Your task to perform on an android device: turn notification dots off Image 0: 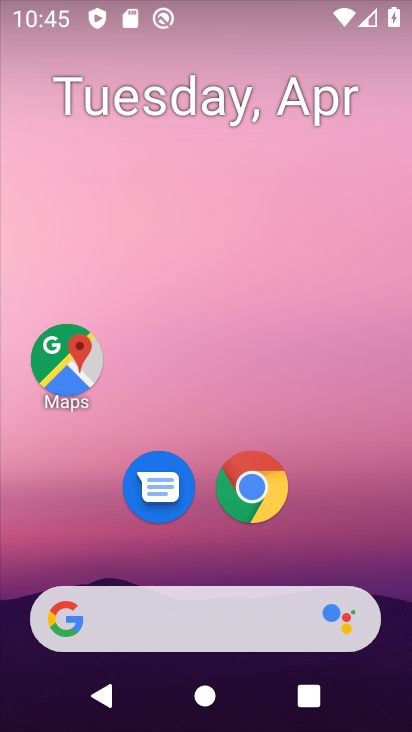
Step 0: drag from (205, 593) to (198, 38)
Your task to perform on an android device: turn notification dots off Image 1: 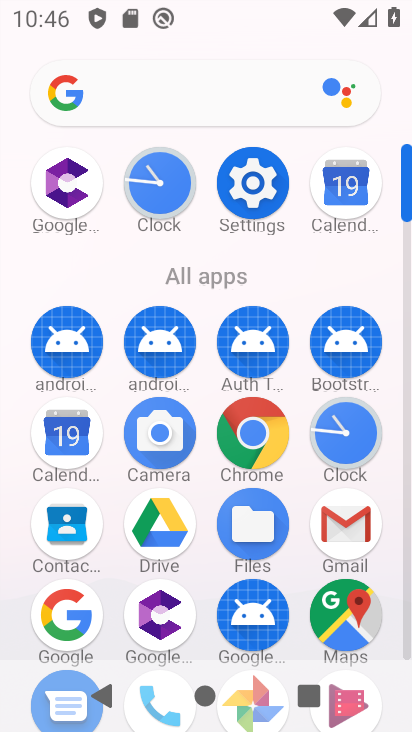
Step 1: click (243, 187)
Your task to perform on an android device: turn notification dots off Image 2: 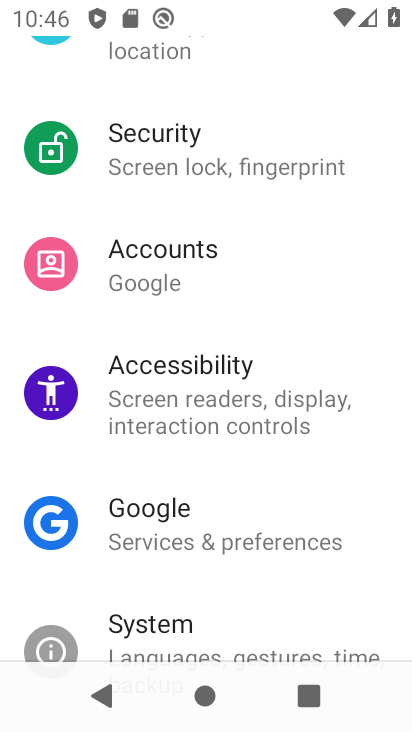
Step 2: drag from (174, 563) to (187, 724)
Your task to perform on an android device: turn notification dots off Image 3: 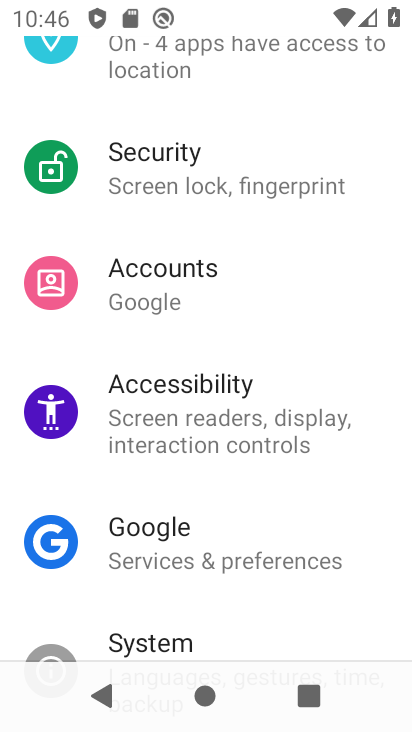
Step 3: drag from (226, 250) to (146, 706)
Your task to perform on an android device: turn notification dots off Image 4: 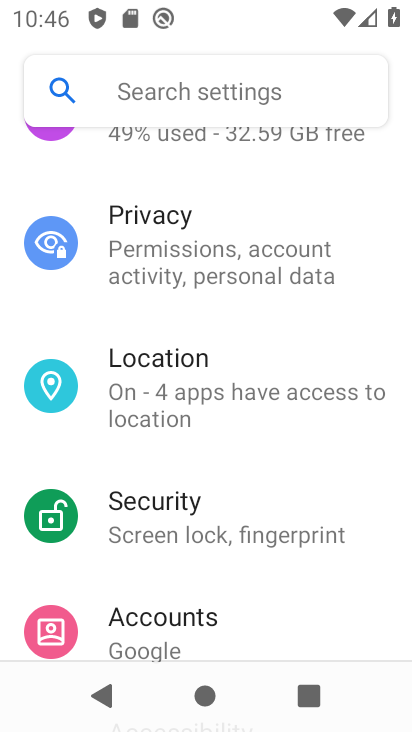
Step 4: drag from (248, 248) to (219, 623)
Your task to perform on an android device: turn notification dots off Image 5: 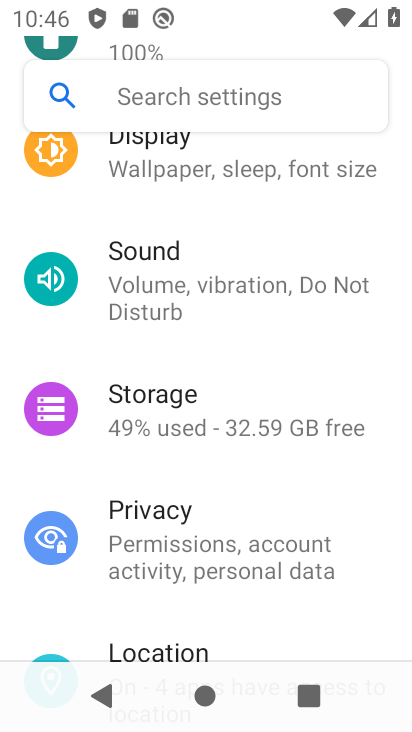
Step 5: drag from (207, 168) to (179, 595)
Your task to perform on an android device: turn notification dots off Image 6: 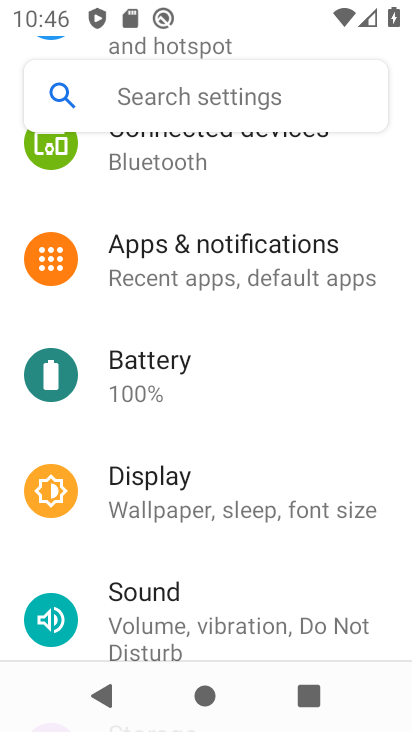
Step 6: click (225, 276)
Your task to perform on an android device: turn notification dots off Image 7: 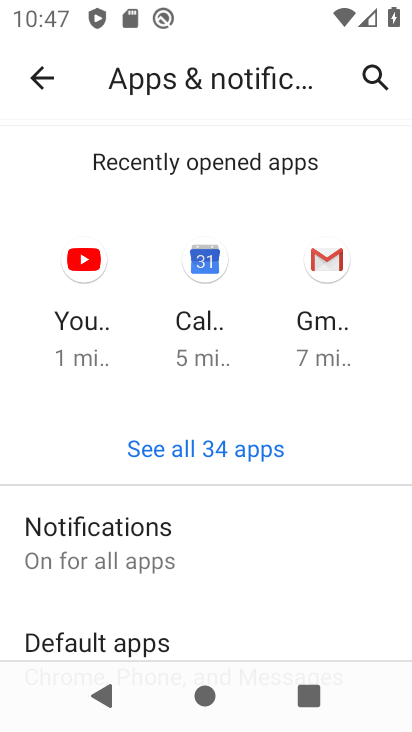
Step 7: drag from (255, 583) to (214, 65)
Your task to perform on an android device: turn notification dots off Image 8: 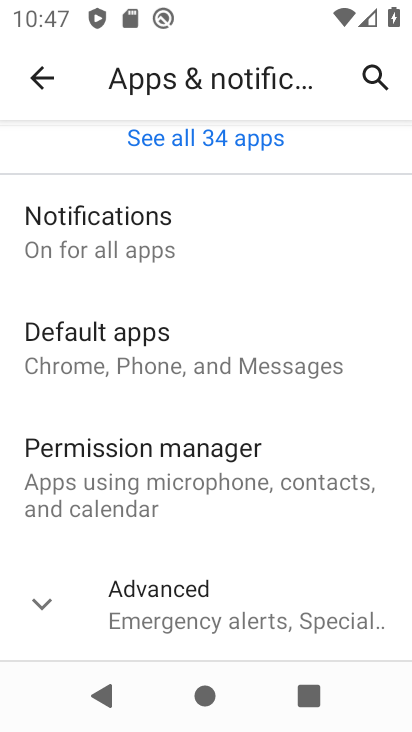
Step 8: click (275, 615)
Your task to perform on an android device: turn notification dots off Image 9: 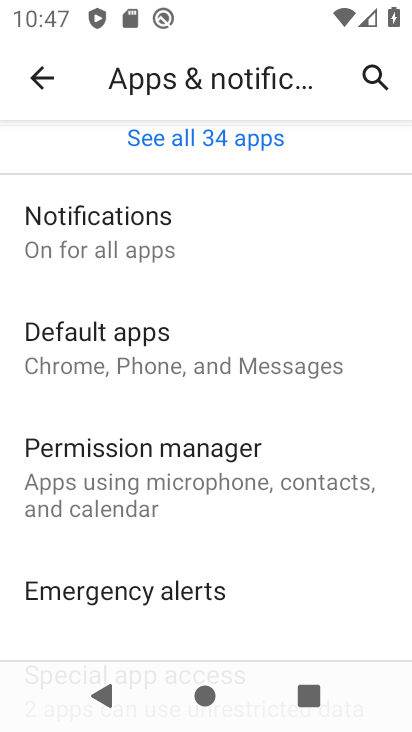
Step 9: drag from (170, 632) to (157, 349)
Your task to perform on an android device: turn notification dots off Image 10: 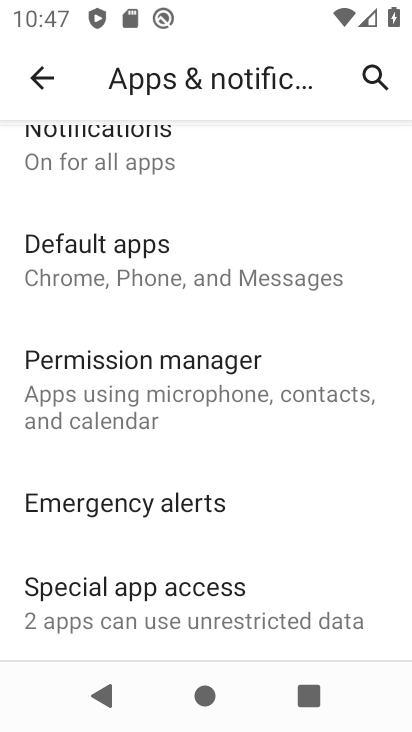
Step 10: click (124, 150)
Your task to perform on an android device: turn notification dots off Image 11: 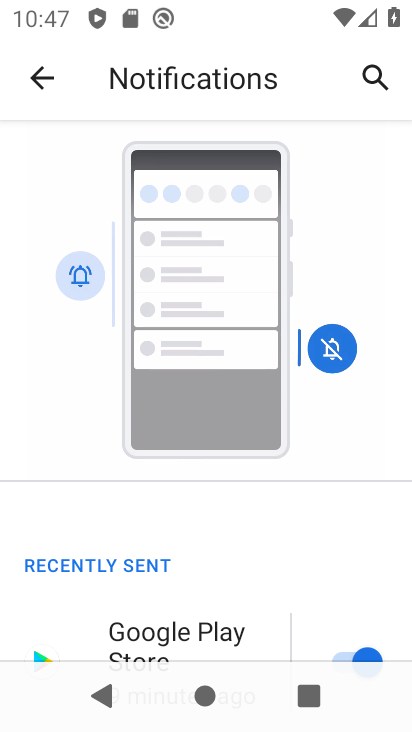
Step 11: drag from (289, 548) to (287, 213)
Your task to perform on an android device: turn notification dots off Image 12: 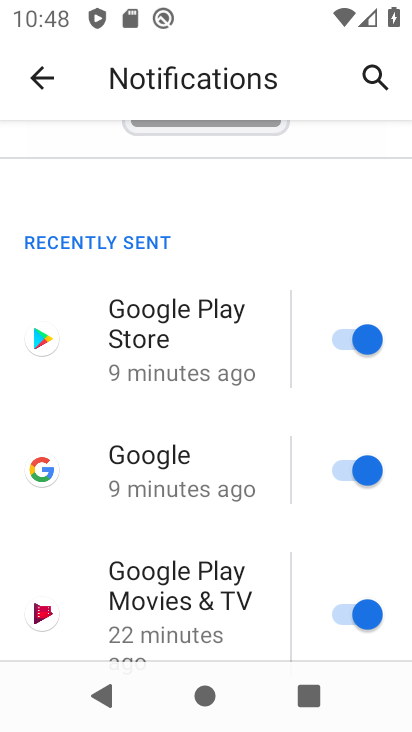
Step 12: drag from (152, 599) to (99, 81)
Your task to perform on an android device: turn notification dots off Image 13: 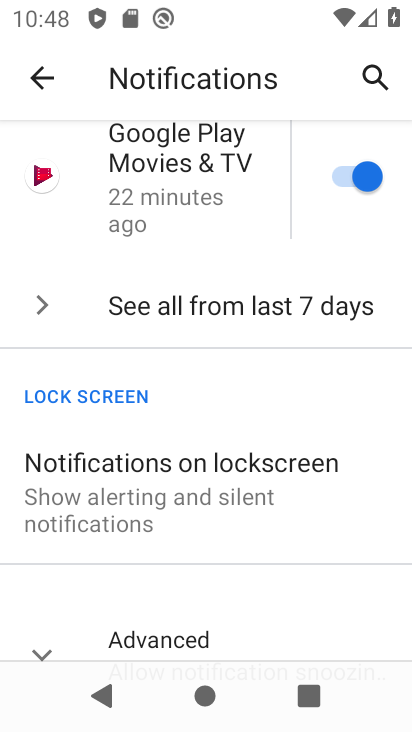
Step 13: drag from (187, 604) to (139, 166)
Your task to perform on an android device: turn notification dots off Image 14: 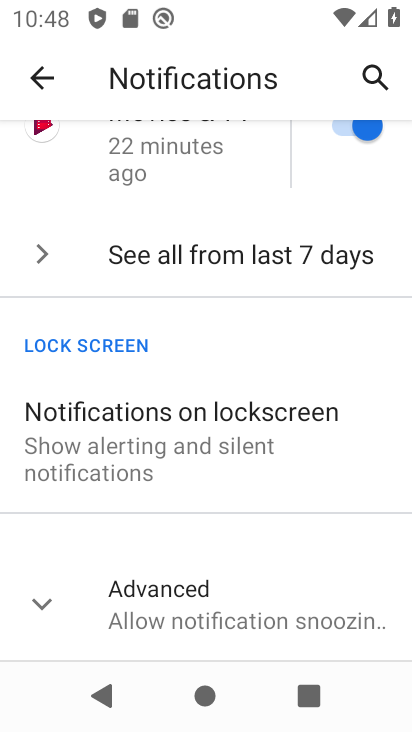
Step 14: click (223, 573)
Your task to perform on an android device: turn notification dots off Image 15: 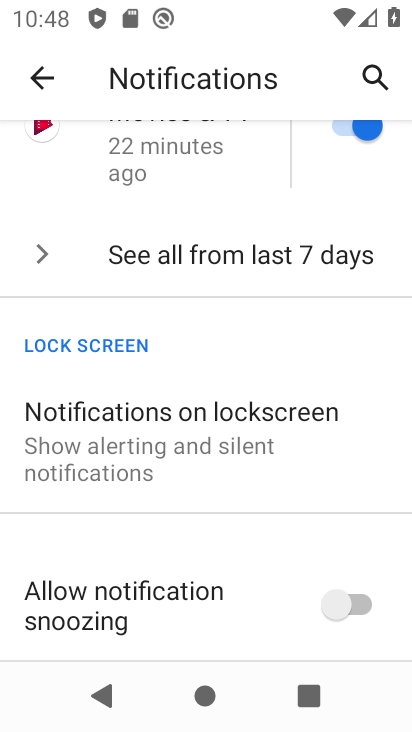
Step 15: task complete